Your task to perform on an android device: star an email in the gmail app Image 0: 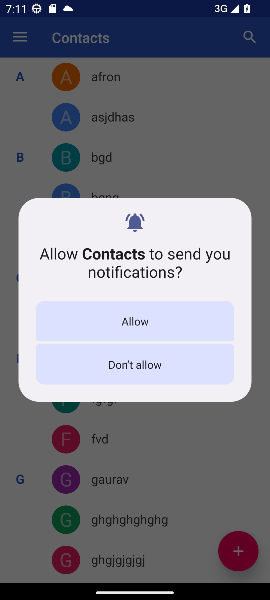
Step 0: press home button
Your task to perform on an android device: star an email in the gmail app Image 1: 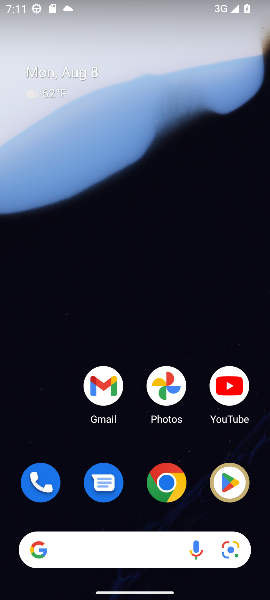
Step 1: drag from (44, 470) to (59, 0)
Your task to perform on an android device: star an email in the gmail app Image 2: 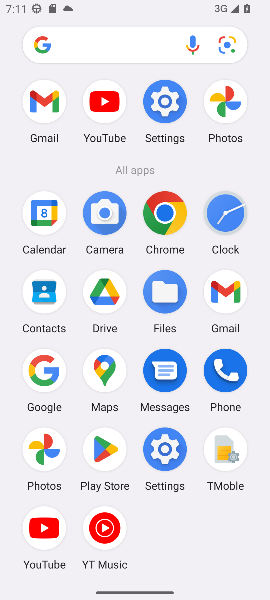
Step 2: click (44, 99)
Your task to perform on an android device: star an email in the gmail app Image 3: 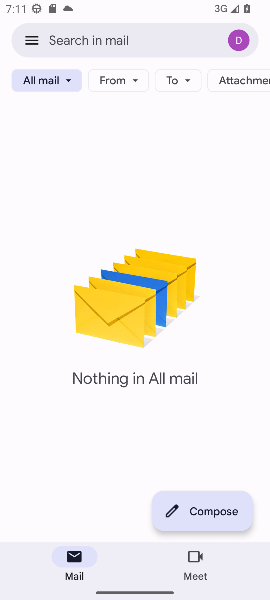
Step 3: task complete